Your task to perform on an android device: turn off airplane mode Image 0: 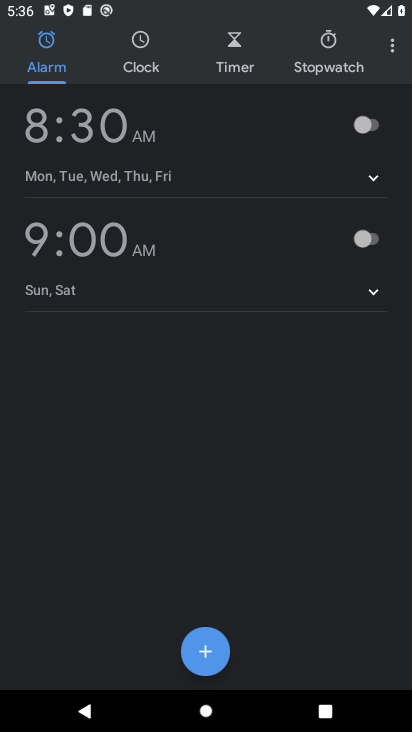
Step 0: press home button
Your task to perform on an android device: turn off airplane mode Image 1: 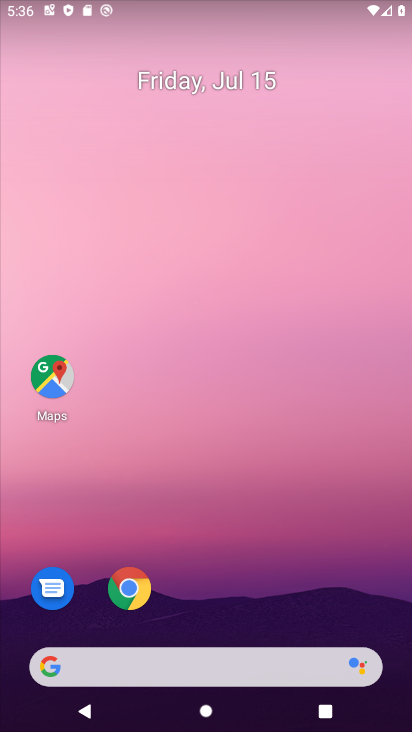
Step 1: drag from (276, 486) to (382, 5)
Your task to perform on an android device: turn off airplane mode Image 2: 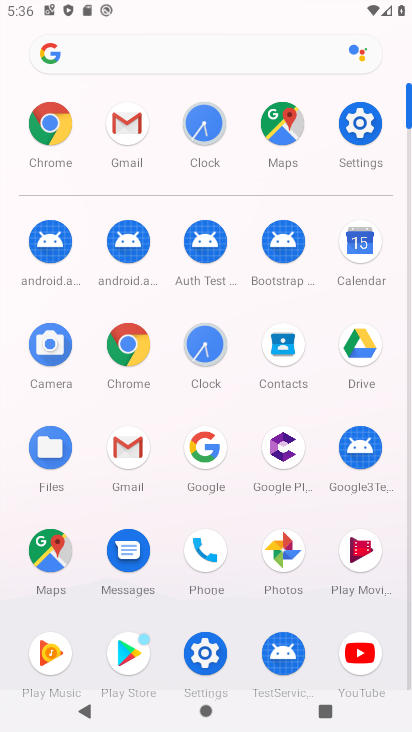
Step 2: click (366, 127)
Your task to perform on an android device: turn off airplane mode Image 3: 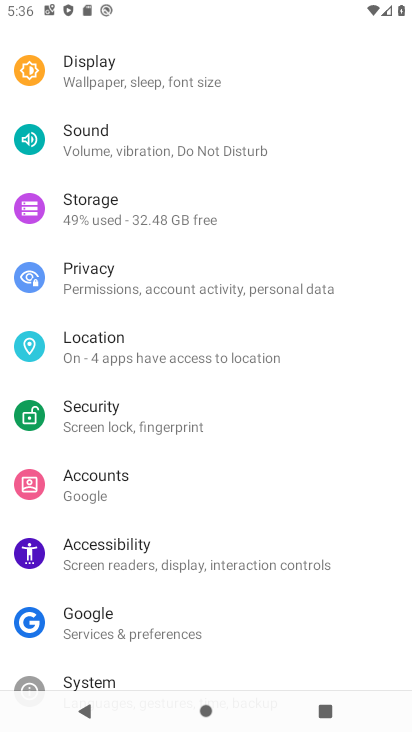
Step 3: drag from (255, 243) to (229, 602)
Your task to perform on an android device: turn off airplane mode Image 4: 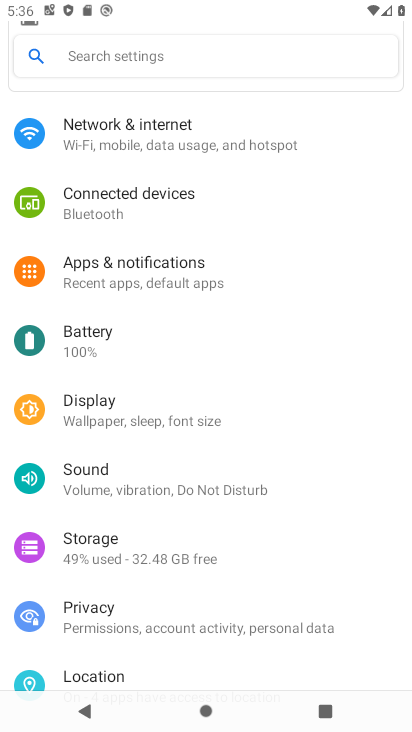
Step 4: click (174, 139)
Your task to perform on an android device: turn off airplane mode Image 5: 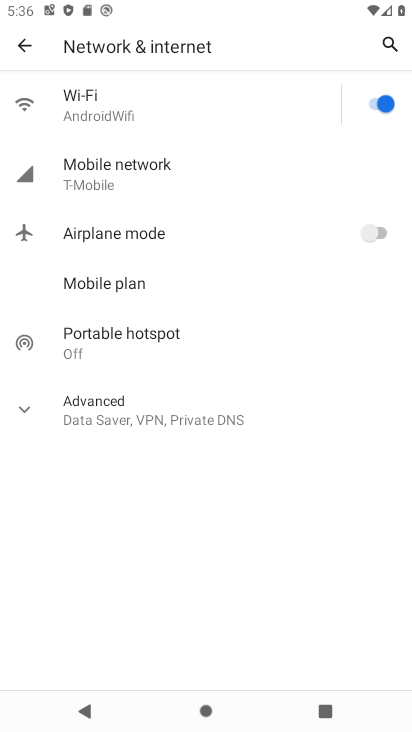
Step 5: task complete